Your task to perform on an android device: allow cookies in the chrome app Image 0: 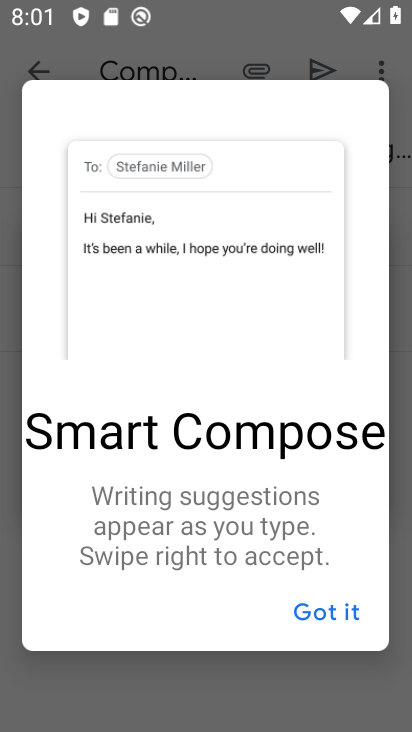
Step 0: press home button
Your task to perform on an android device: allow cookies in the chrome app Image 1: 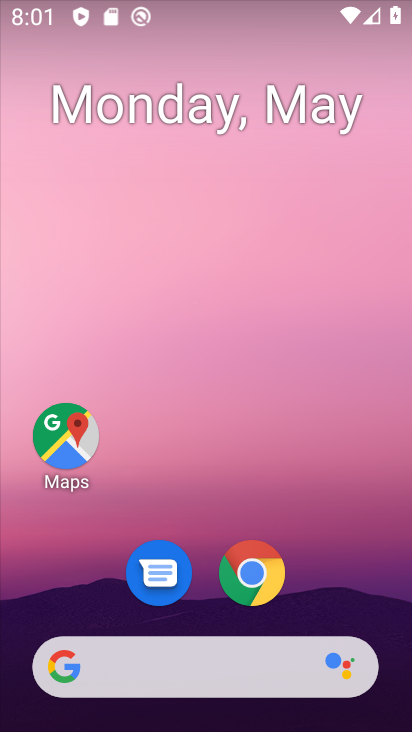
Step 1: click (267, 602)
Your task to perform on an android device: allow cookies in the chrome app Image 2: 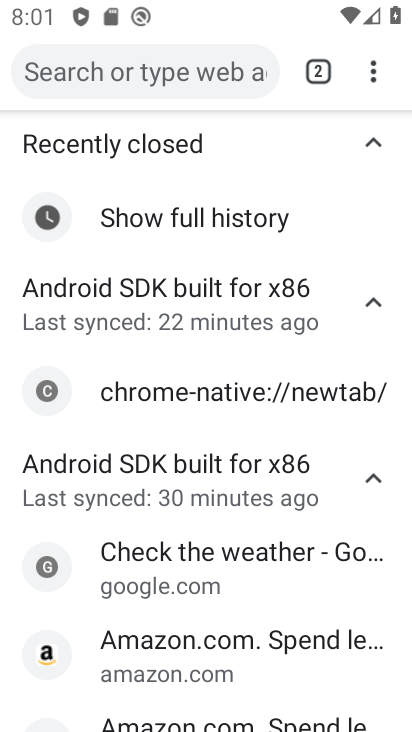
Step 2: click (374, 63)
Your task to perform on an android device: allow cookies in the chrome app Image 3: 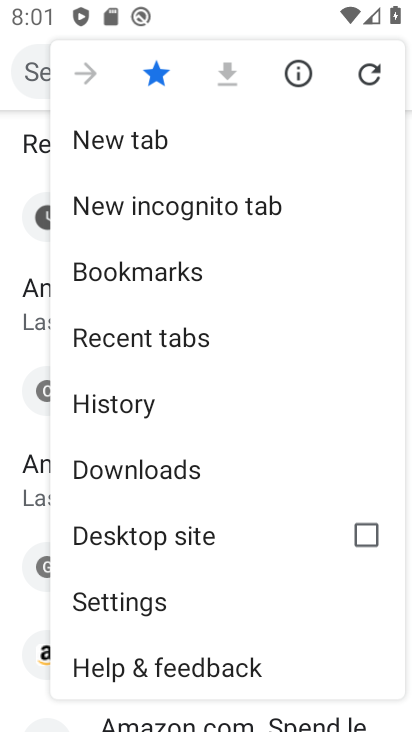
Step 3: drag from (201, 544) to (227, 435)
Your task to perform on an android device: allow cookies in the chrome app Image 4: 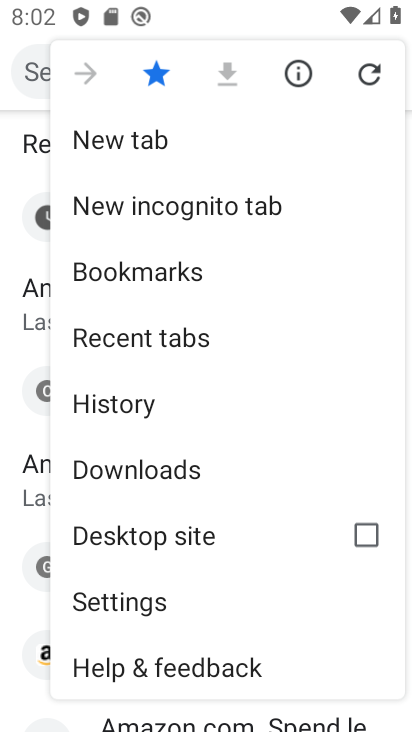
Step 4: click (157, 618)
Your task to perform on an android device: allow cookies in the chrome app Image 5: 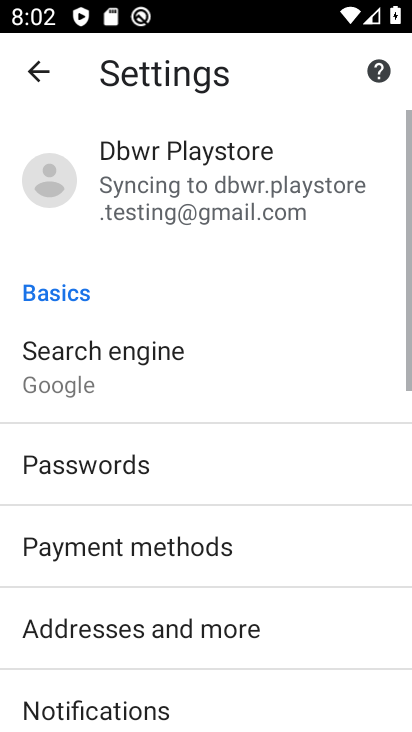
Step 5: drag from (174, 528) to (314, 120)
Your task to perform on an android device: allow cookies in the chrome app Image 6: 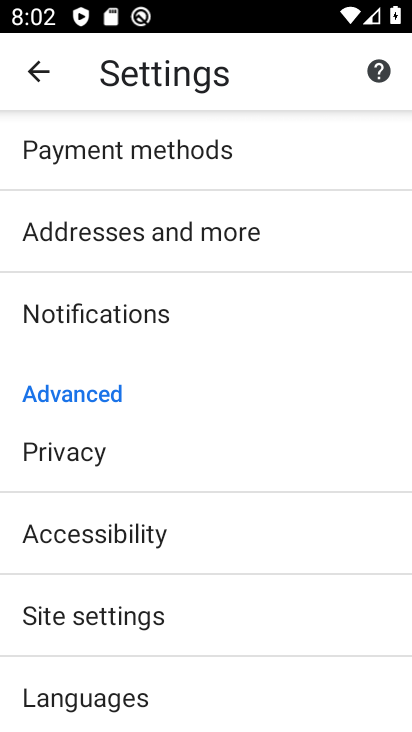
Step 6: click (150, 635)
Your task to perform on an android device: allow cookies in the chrome app Image 7: 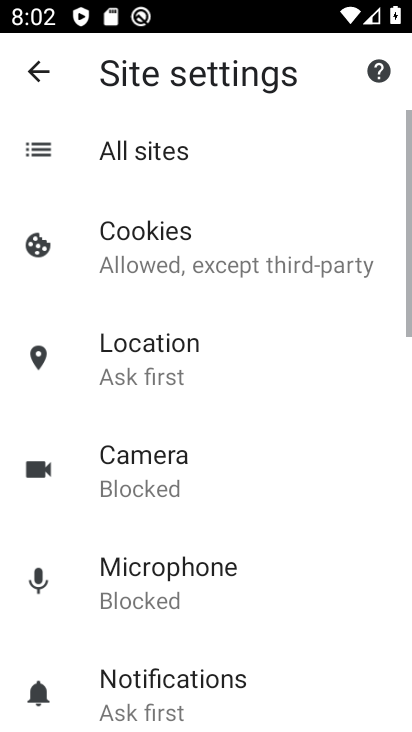
Step 7: task complete